Your task to perform on an android device: Open internet settings Image 0: 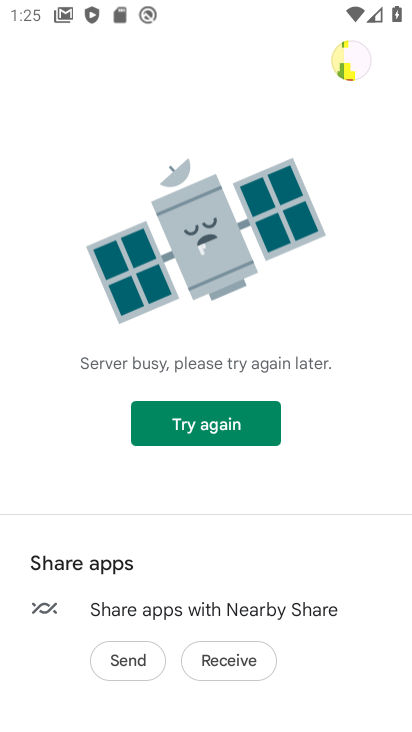
Step 0: press home button
Your task to perform on an android device: Open internet settings Image 1: 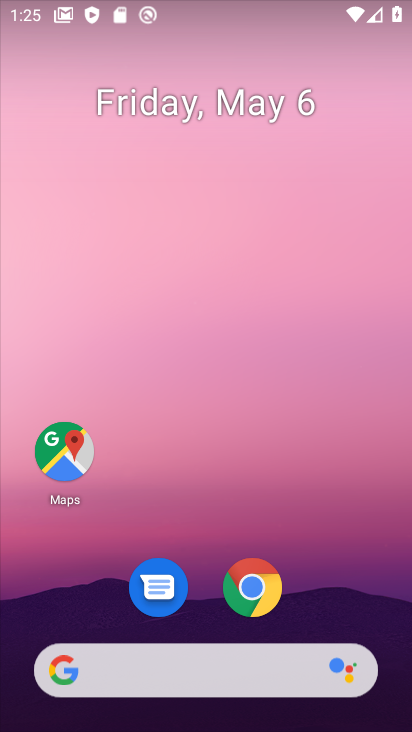
Step 1: drag from (294, 521) to (330, 51)
Your task to perform on an android device: Open internet settings Image 2: 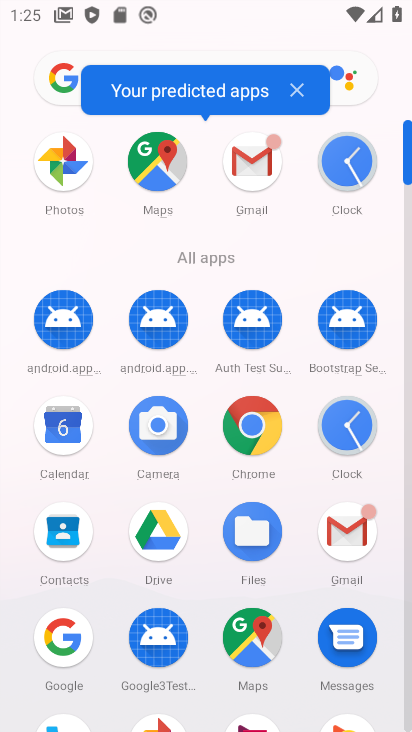
Step 2: drag from (411, 479) to (405, 76)
Your task to perform on an android device: Open internet settings Image 3: 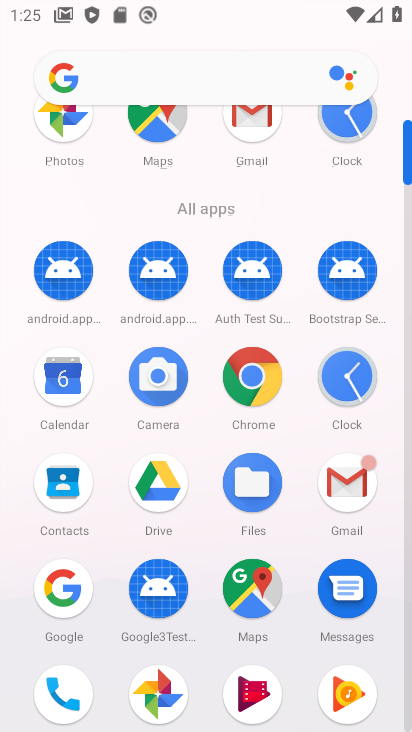
Step 3: drag from (383, 574) to (409, 417)
Your task to perform on an android device: Open internet settings Image 4: 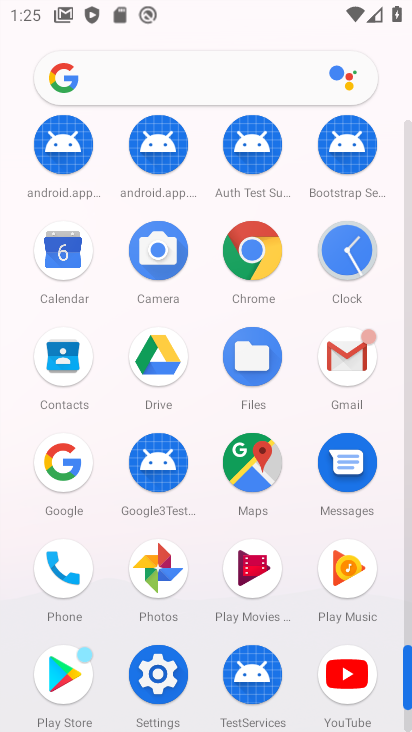
Step 4: click (171, 671)
Your task to perform on an android device: Open internet settings Image 5: 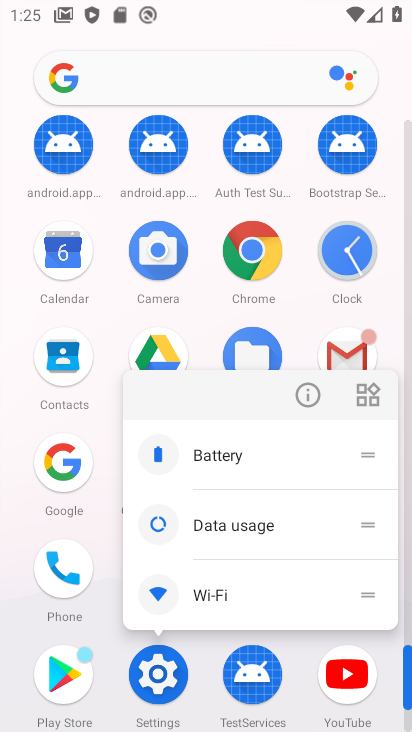
Step 5: click (159, 680)
Your task to perform on an android device: Open internet settings Image 6: 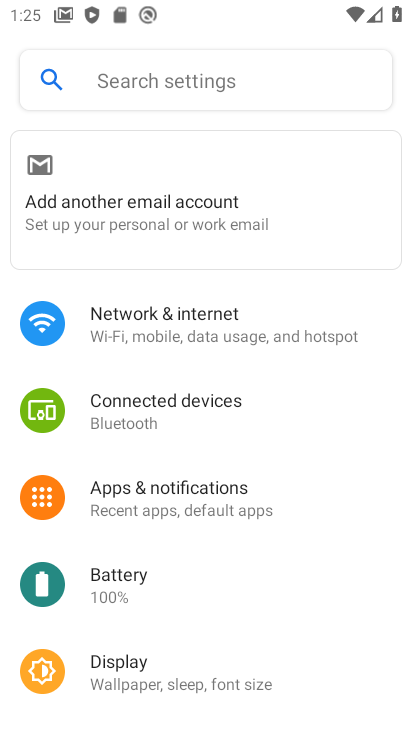
Step 6: drag from (174, 606) to (230, 341)
Your task to perform on an android device: Open internet settings Image 7: 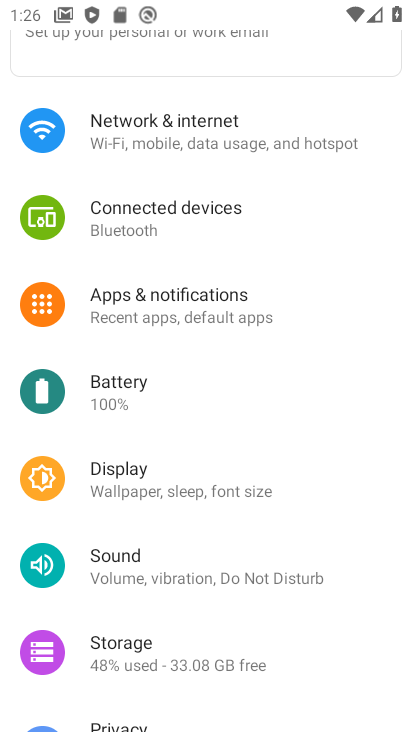
Step 7: click (229, 142)
Your task to perform on an android device: Open internet settings Image 8: 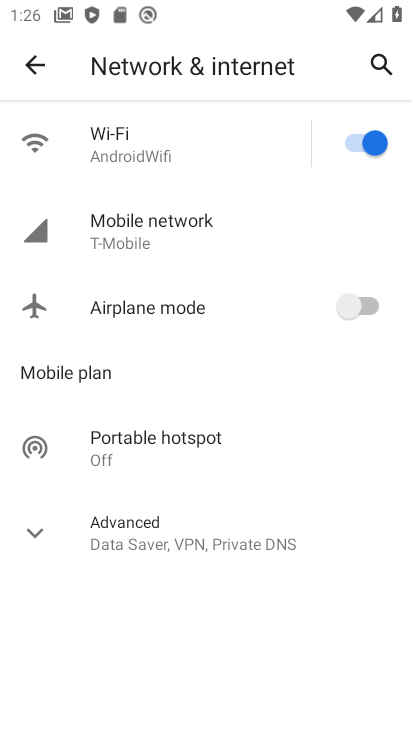
Step 8: click (172, 229)
Your task to perform on an android device: Open internet settings Image 9: 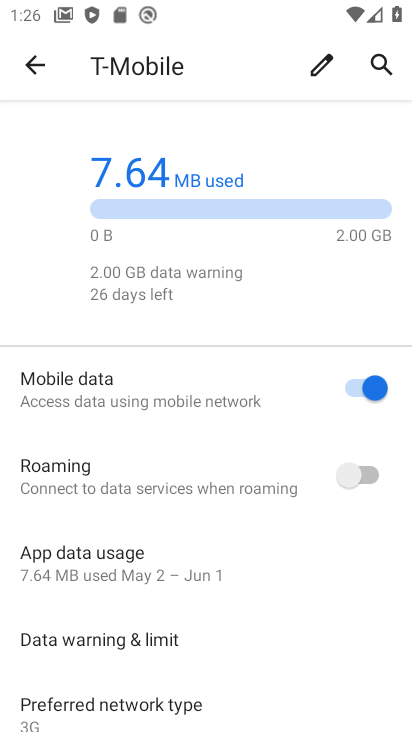
Step 9: task complete